Your task to perform on an android device: Open Amazon Image 0: 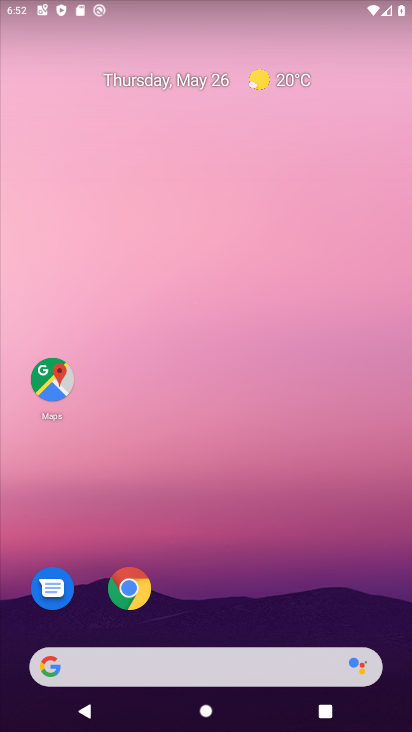
Step 0: drag from (313, 605) to (268, 8)
Your task to perform on an android device: Open Amazon Image 1: 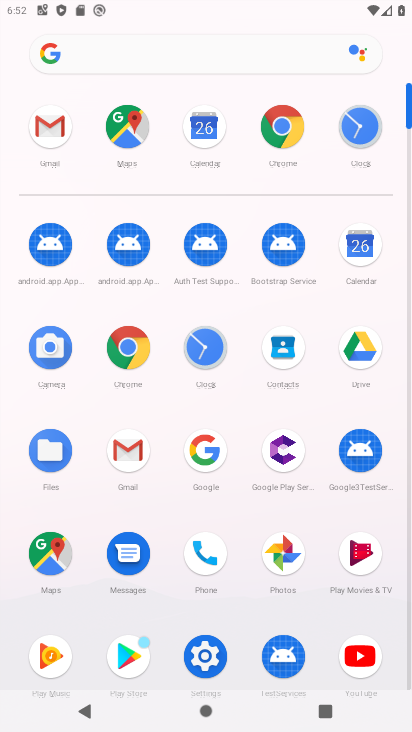
Step 1: click (217, 465)
Your task to perform on an android device: Open Amazon Image 2: 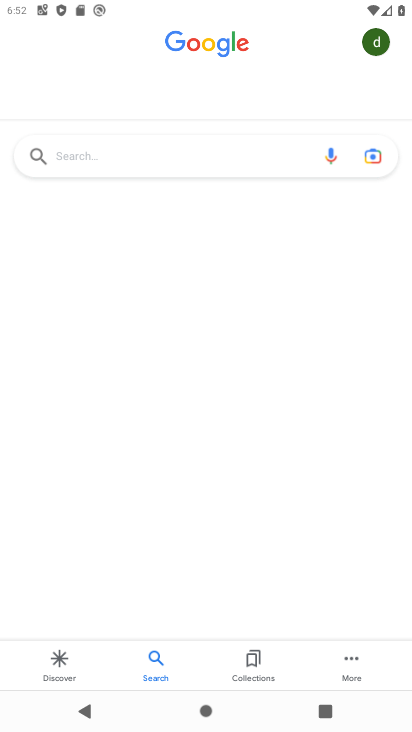
Step 2: click (119, 166)
Your task to perform on an android device: Open Amazon Image 3: 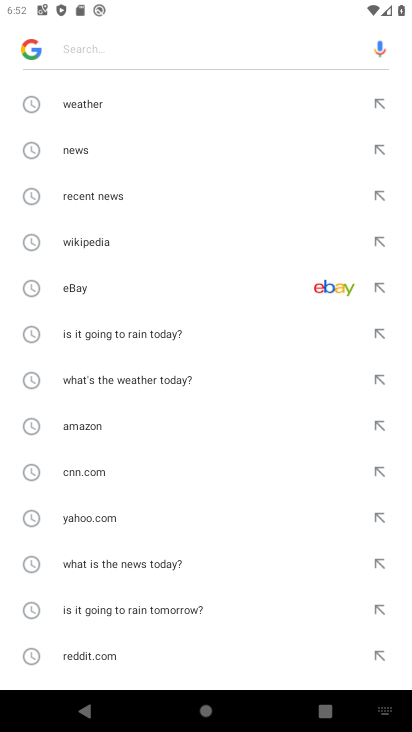
Step 3: click (95, 435)
Your task to perform on an android device: Open Amazon Image 4: 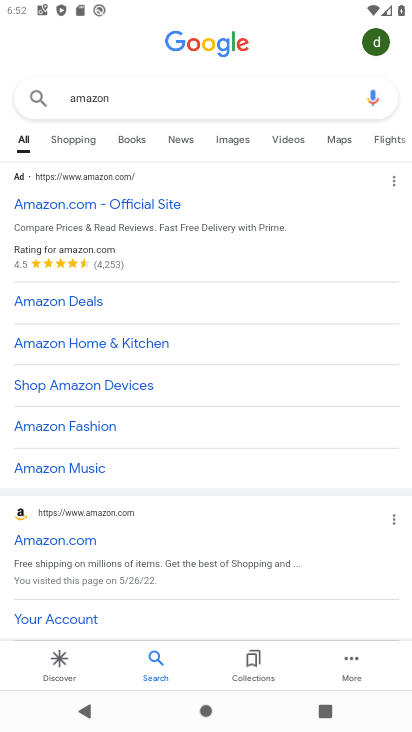
Step 4: task complete